Your task to perform on an android device: find photos in the google photos app Image 0: 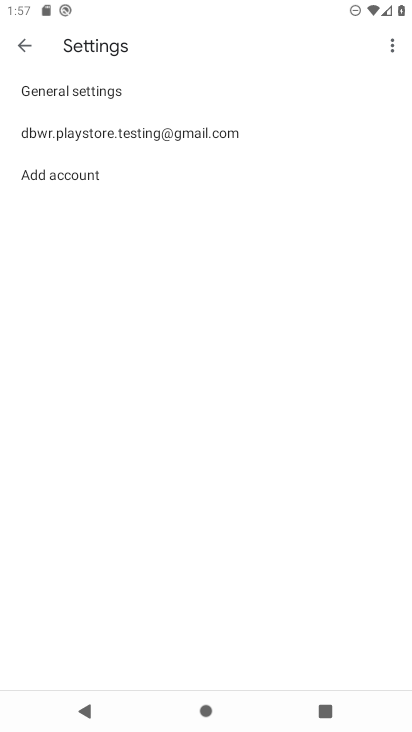
Step 0: press back button
Your task to perform on an android device: find photos in the google photos app Image 1: 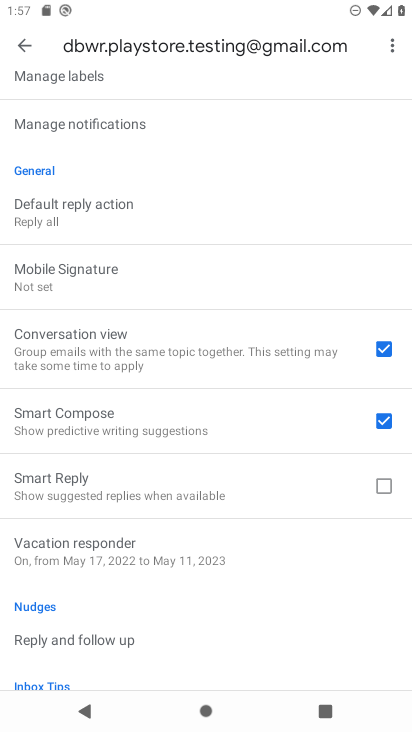
Step 1: press home button
Your task to perform on an android device: find photos in the google photos app Image 2: 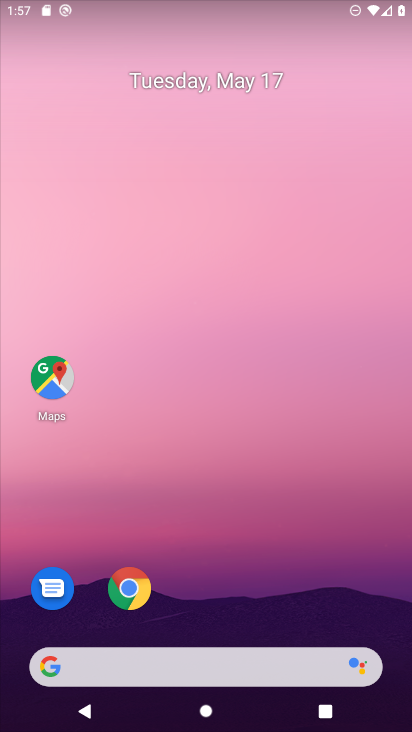
Step 2: drag from (267, 503) to (92, 133)
Your task to perform on an android device: find photos in the google photos app Image 3: 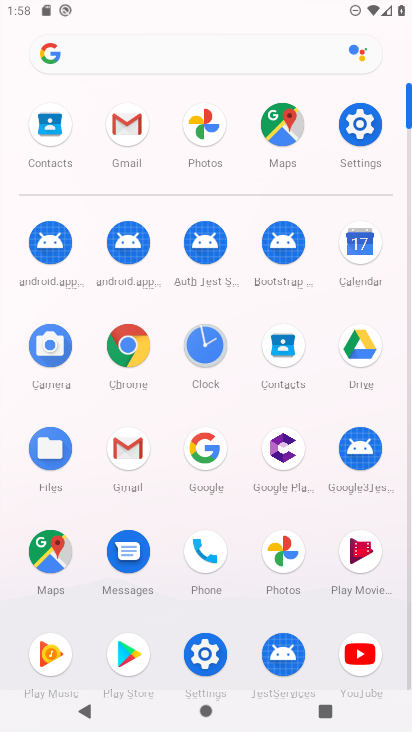
Step 3: click (275, 548)
Your task to perform on an android device: find photos in the google photos app Image 4: 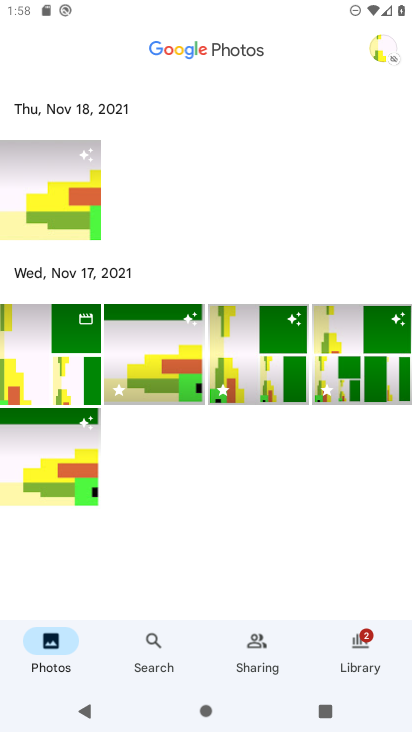
Step 4: task complete